Your task to perform on an android device: turn off location history Image 0: 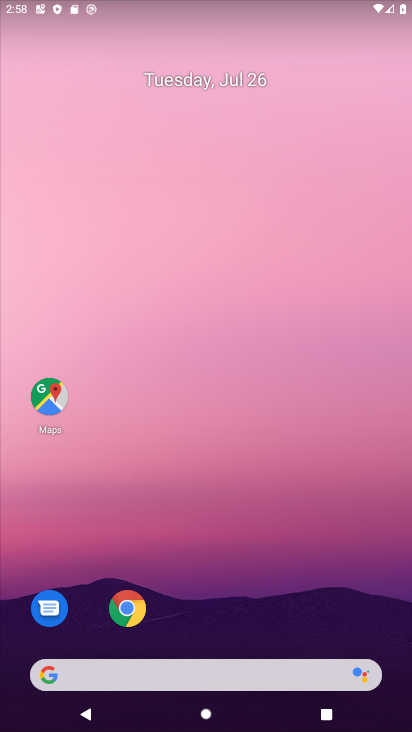
Step 0: drag from (217, 500) to (237, 217)
Your task to perform on an android device: turn off location history Image 1: 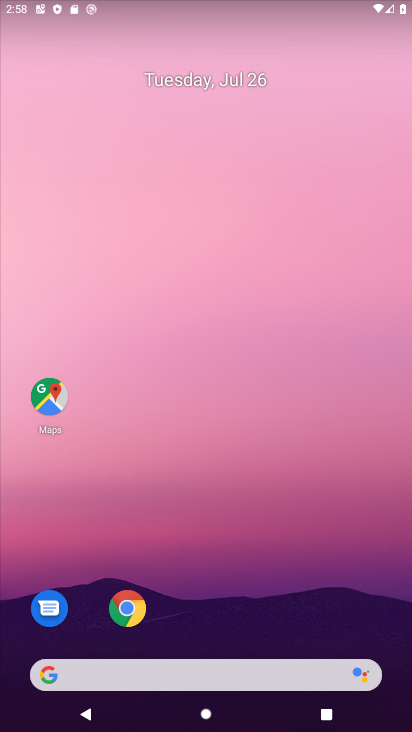
Step 1: drag from (249, 617) to (291, 8)
Your task to perform on an android device: turn off location history Image 2: 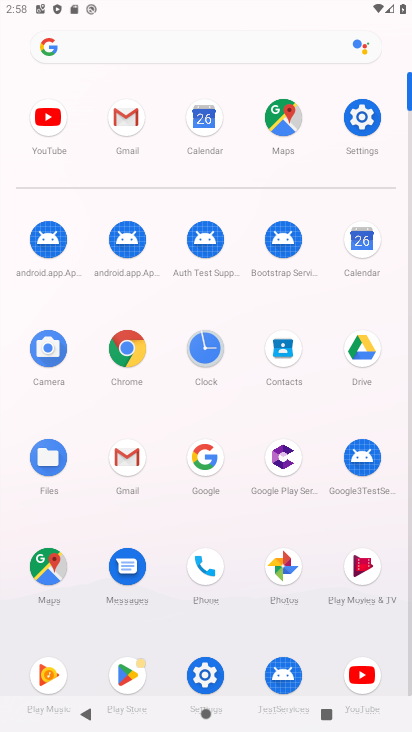
Step 2: click (362, 144)
Your task to perform on an android device: turn off location history Image 3: 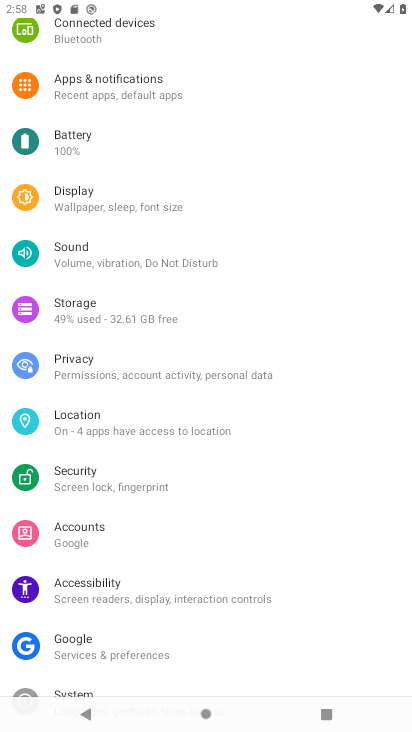
Step 3: click (108, 408)
Your task to perform on an android device: turn off location history Image 4: 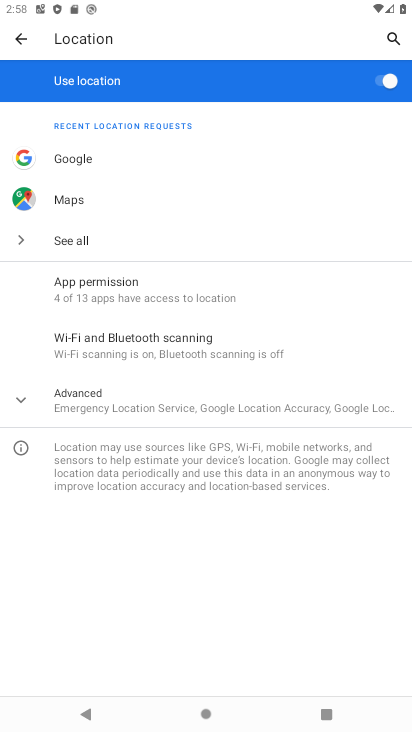
Step 4: click (383, 74)
Your task to perform on an android device: turn off location history Image 5: 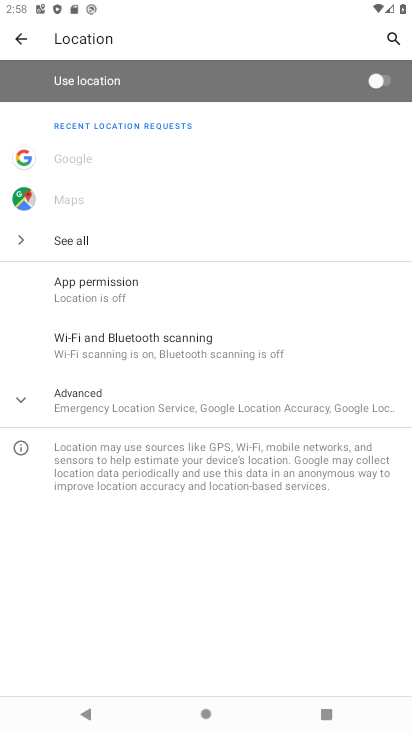
Step 5: task complete